Your task to perform on an android device: turn off javascript in the chrome app Image 0: 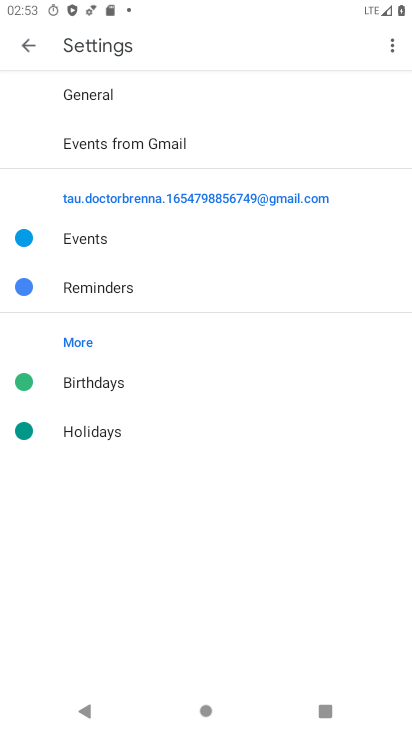
Step 0: press home button
Your task to perform on an android device: turn off javascript in the chrome app Image 1: 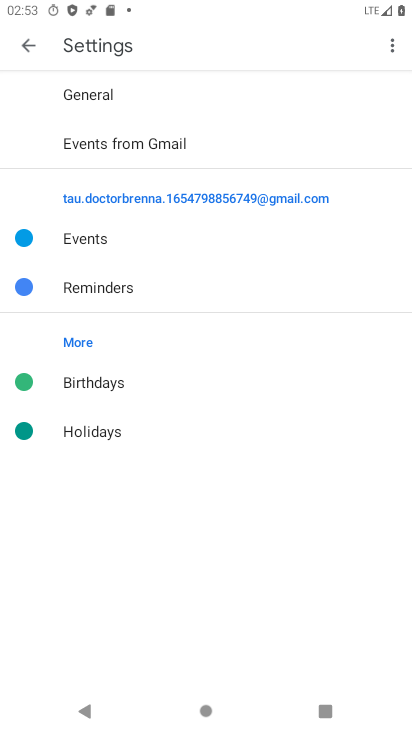
Step 1: press home button
Your task to perform on an android device: turn off javascript in the chrome app Image 2: 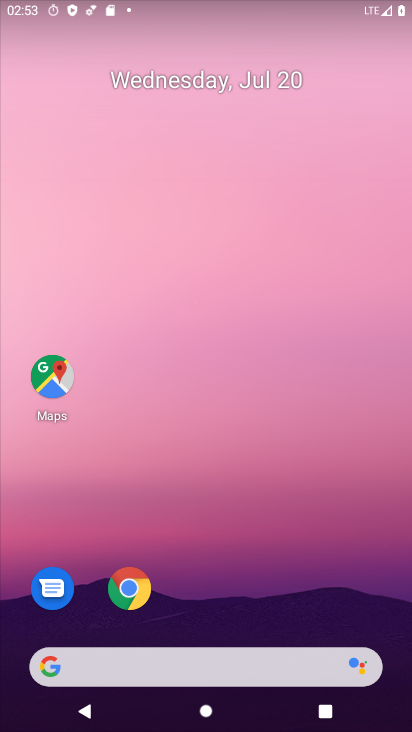
Step 2: drag from (194, 624) to (354, 132)
Your task to perform on an android device: turn off javascript in the chrome app Image 3: 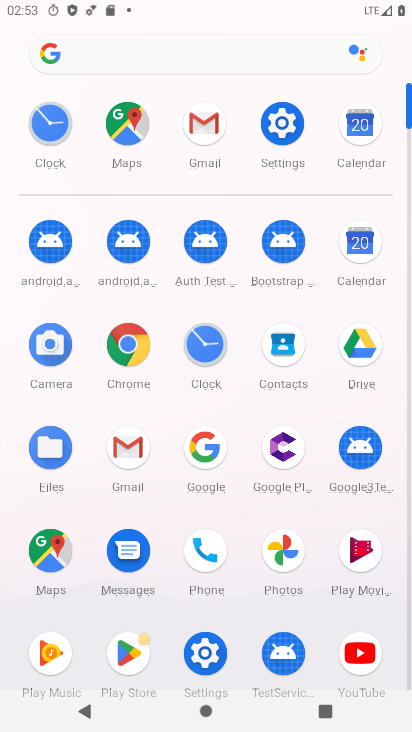
Step 3: click (132, 349)
Your task to perform on an android device: turn off javascript in the chrome app Image 4: 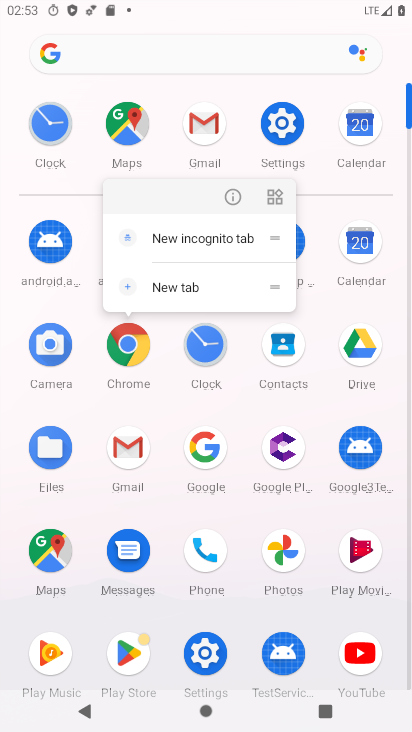
Step 4: click (237, 199)
Your task to perform on an android device: turn off javascript in the chrome app Image 5: 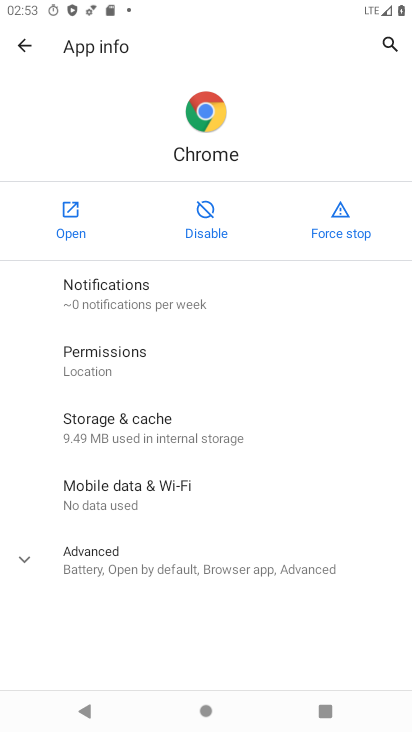
Step 5: click (74, 220)
Your task to perform on an android device: turn off javascript in the chrome app Image 6: 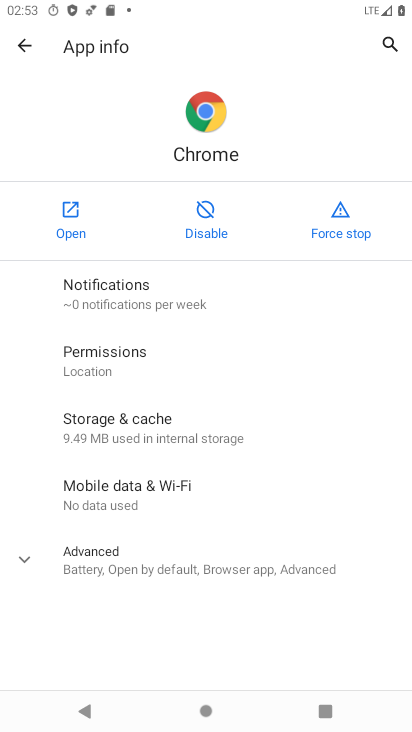
Step 6: click (74, 220)
Your task to perform on an android device: turn off javascript in the chrome app Image 7: 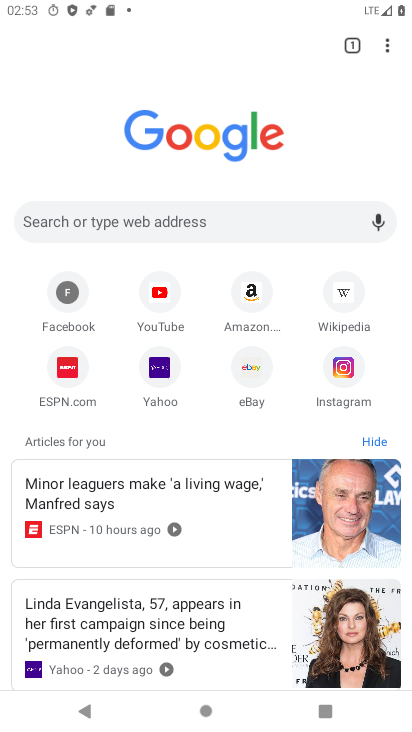
Step 7: drag from (389, 40) to (251, 383)
Your task to perform on an android device: turn off javascript in the chrome app Image 8: 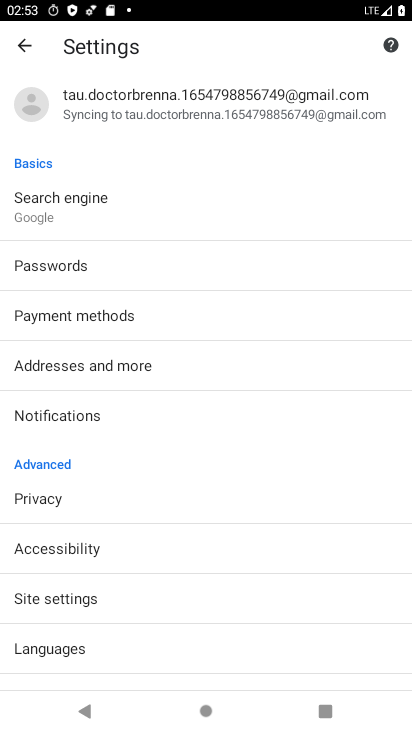
Step 8: click (82, 608)
Your task to perform on an android device: turn off javascript in the chrome app Image 9: 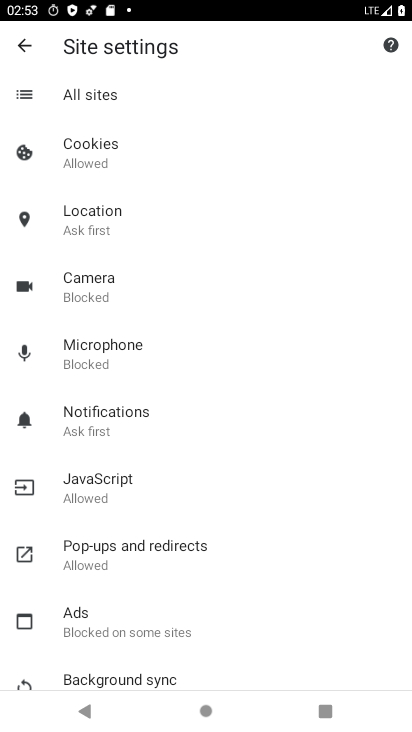
Step 9: drag from (128, 524) to (212, 188)
Your task to perform on an android device: turn off javascript in the chrome app Image 10: 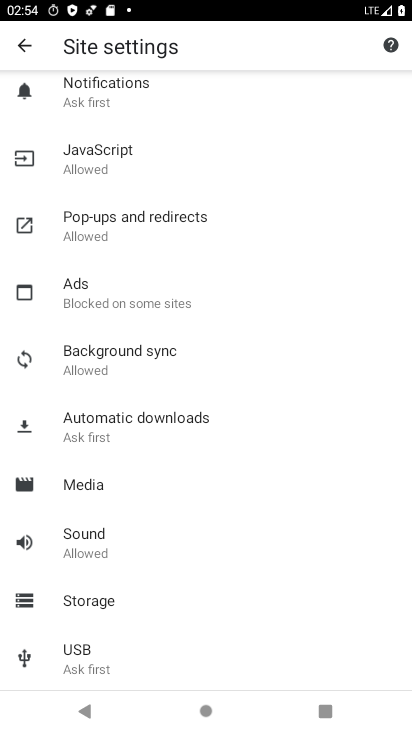
Step 10: click (110, 151)
Your task to perform on an android device: turn off javascript in the chrome app Image 11: 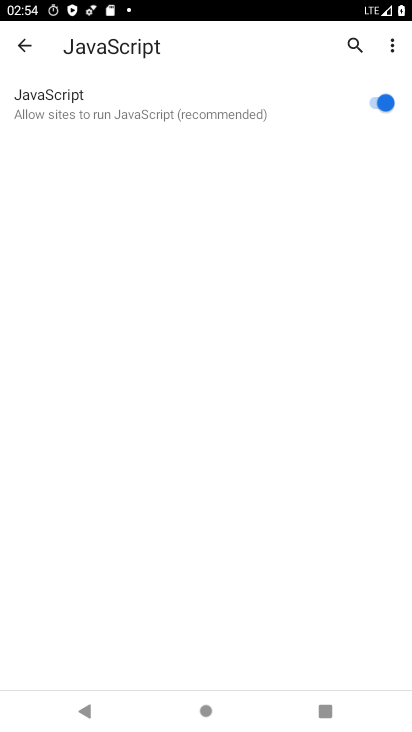
Step 11: drag from (258, 596) to (310, 254)
Your task to perform on an android device: turn off javascript in the chrome app Image 12: 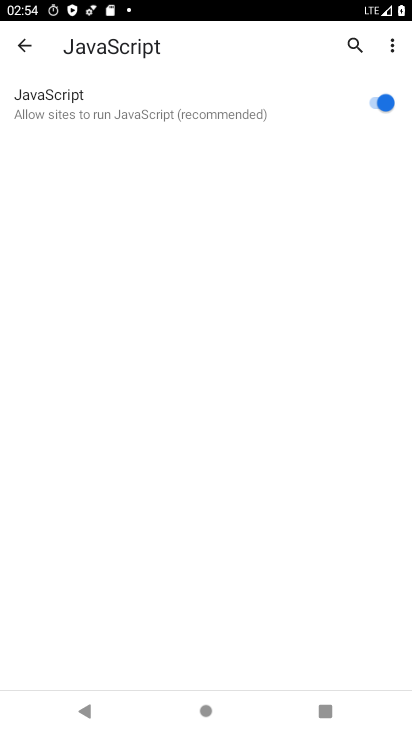
Step 12: click (378, 96)
Your task to perform on an android device: turn off javascript in the chrome app Image 13: 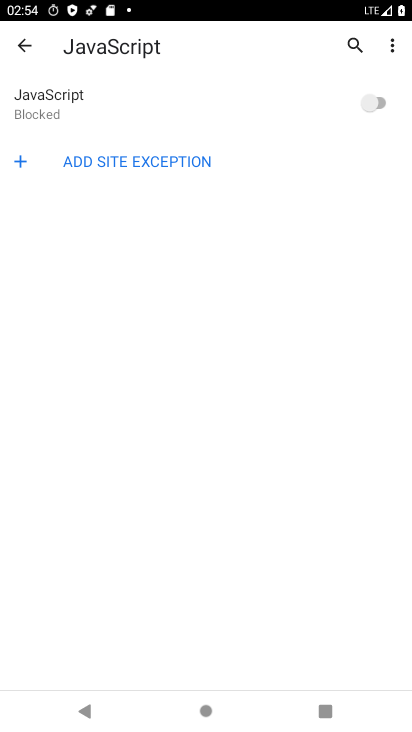
Step 13: task complete